Your task to perform on an android device: Search for the best coffee tables on Crate & Barrel Image 0: 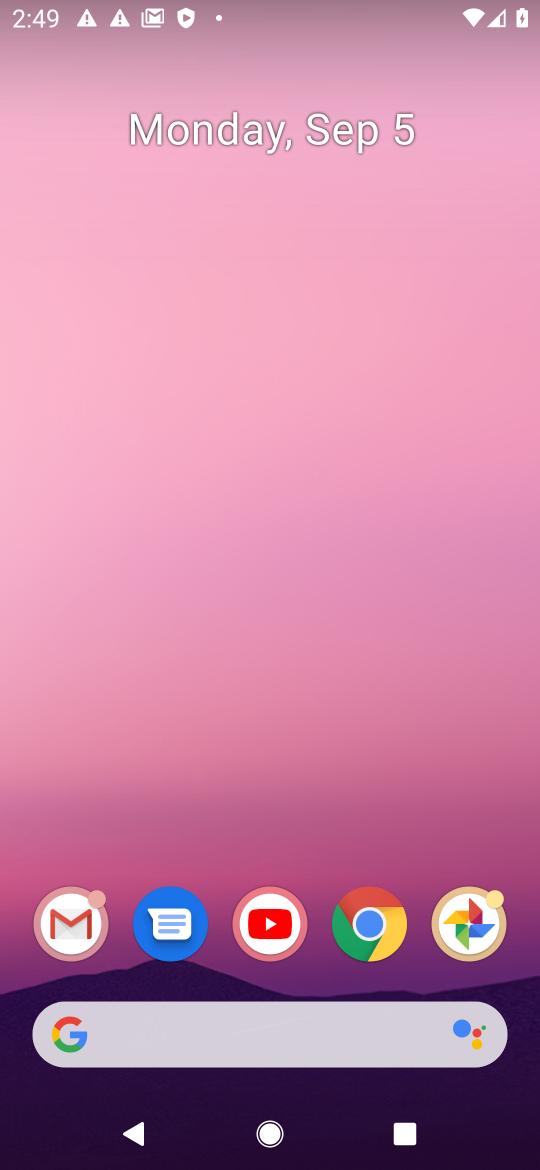
Step 0: drag from (286, 885) to (454, 0)
Your task to perform on an android device: Search for the best coffee tables on Crate & Barrel Image 1: 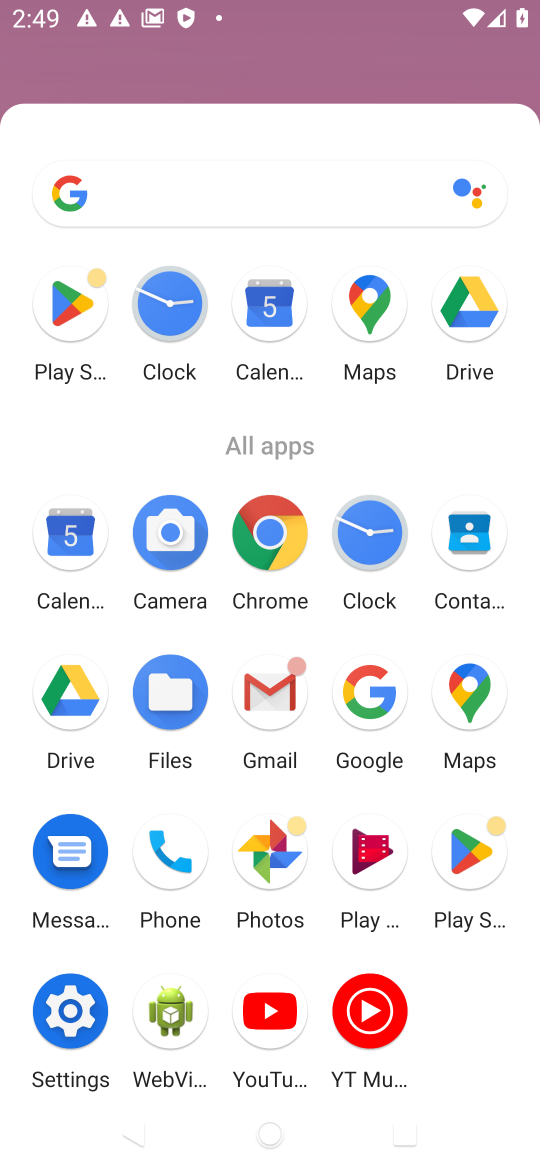
Step 1: click (286, 498)
Your task to perform on an android device: Search for the best coffee tables on Crate & Barrel Image 2: 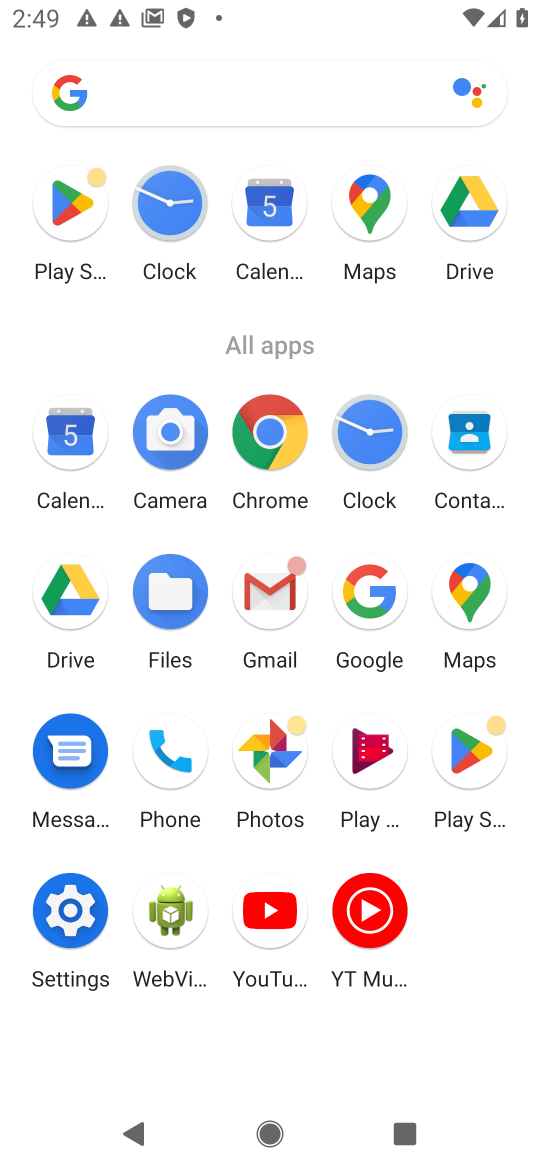
Step 2: click (272, 463)
Your task to perform on an android device: Search for the best coffee tables on Crate & Barrel Image 3: 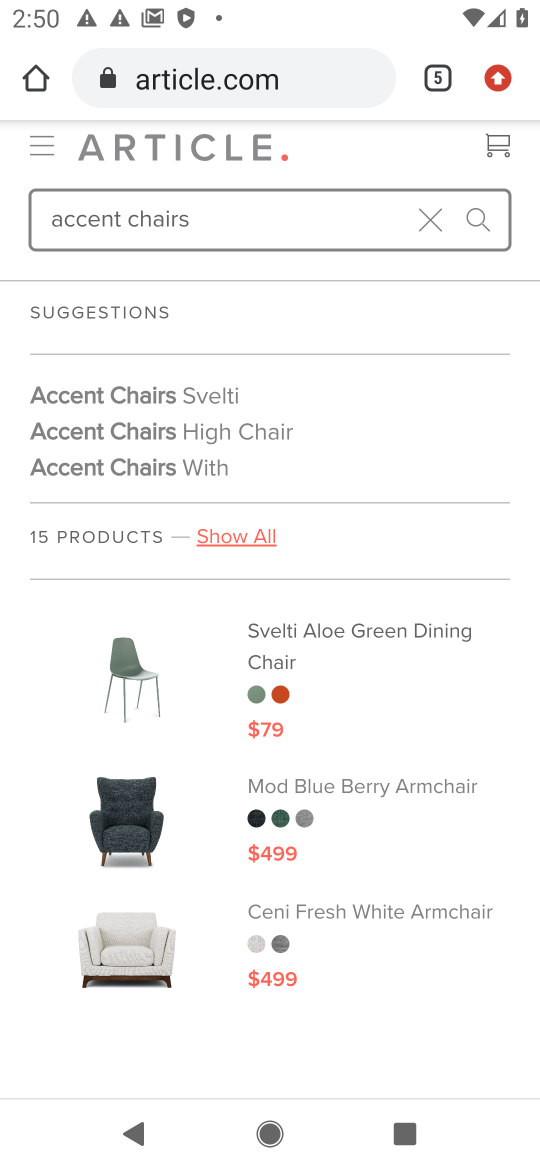
Step 3: click (435, 85)
Your task to perform on an android device: Search for the best coffee tables on Crate & Barrel Image 4: 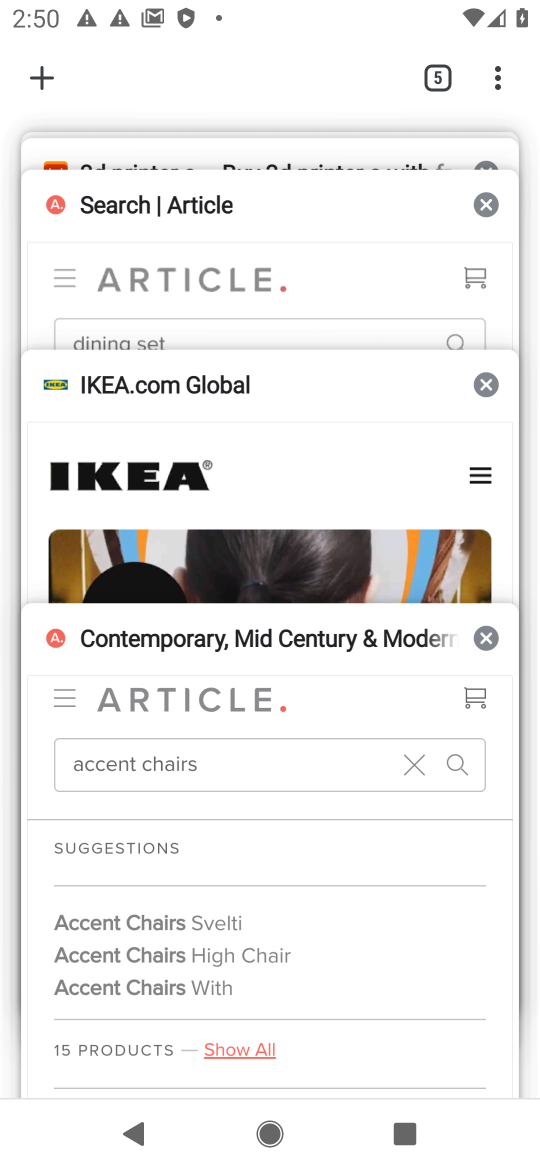
Step 4: click (38, 72)
Your task to perform on an android device: Search for the best coffee tables on Crate & Barrel Image 5: 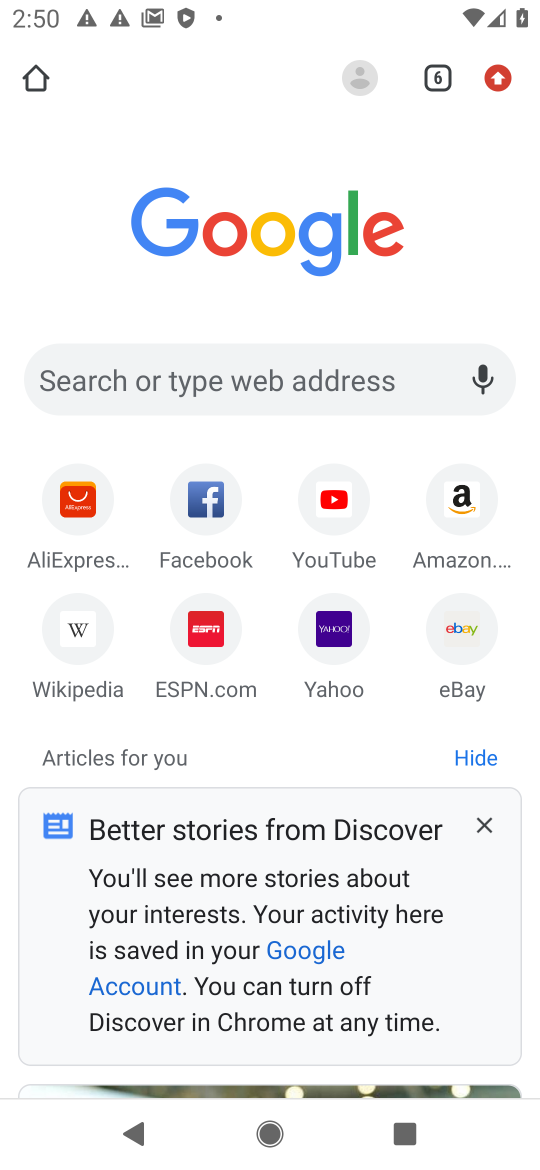
Step 5: click (263, 367)
Your task to perform on an android device: Search for the best coffee tables on Crate & Barrel Image 6: 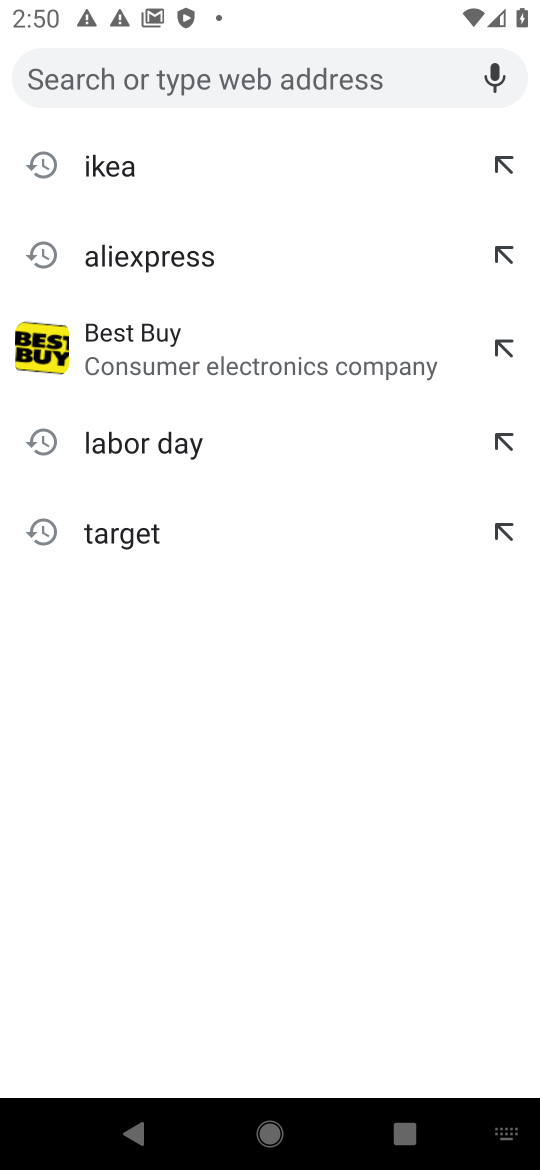
Step 6: type "Crate & Barrel"
Your task to perform on an android device: Search for the best coffee tables on Crate & Barrel Image 7: 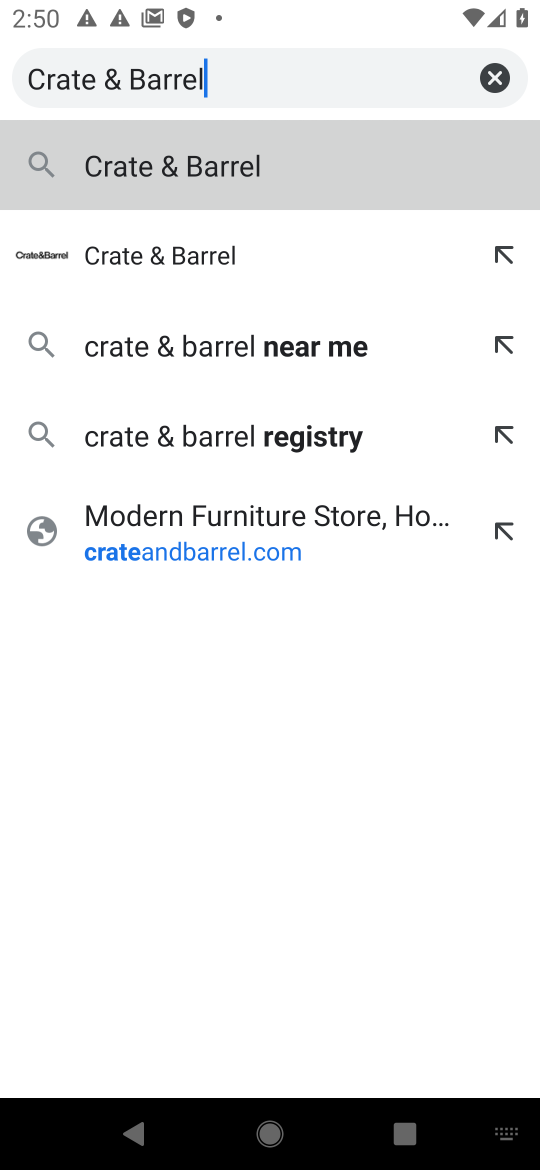
Step 7: click (138, 144)
Your task to perform on an android device: Search for the best coffee tables on Crate & Barrel Image 8: 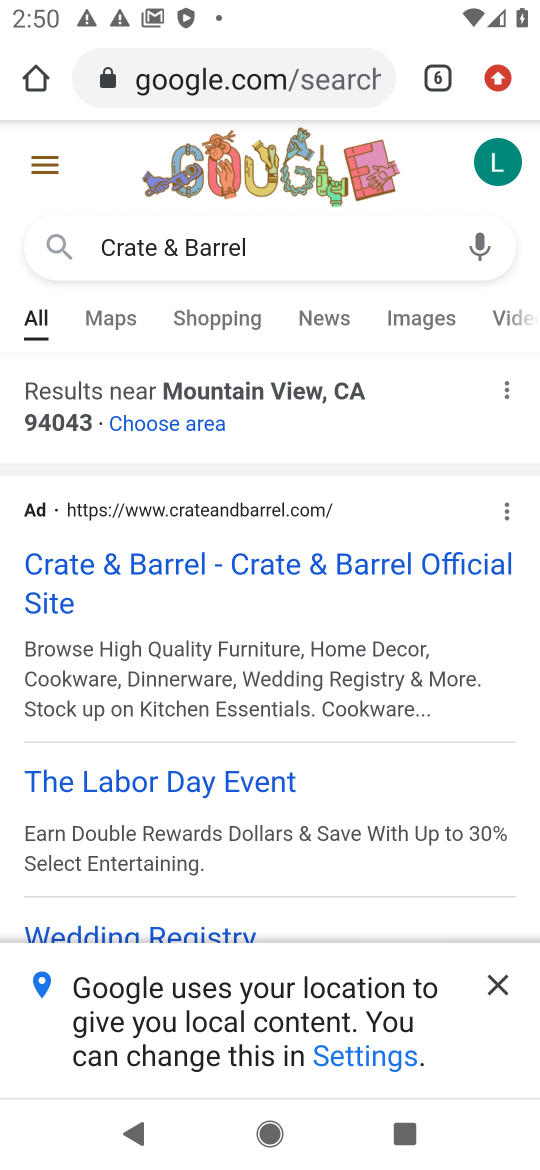
Step 8: click (248, 563)
Your task to perform on an android device: Search for the best coffee tables on Crate & Barrel Image 9: 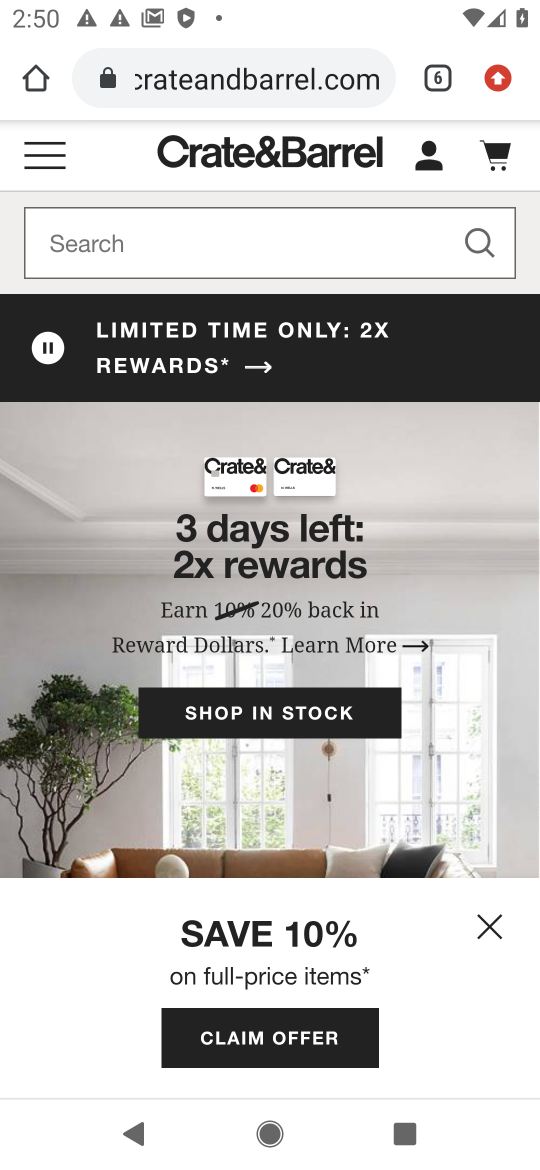
Step 9: click (144, 246)
Your task to perform on an android device: Search for the best coffee tables on Crate & Barrel Image 10: 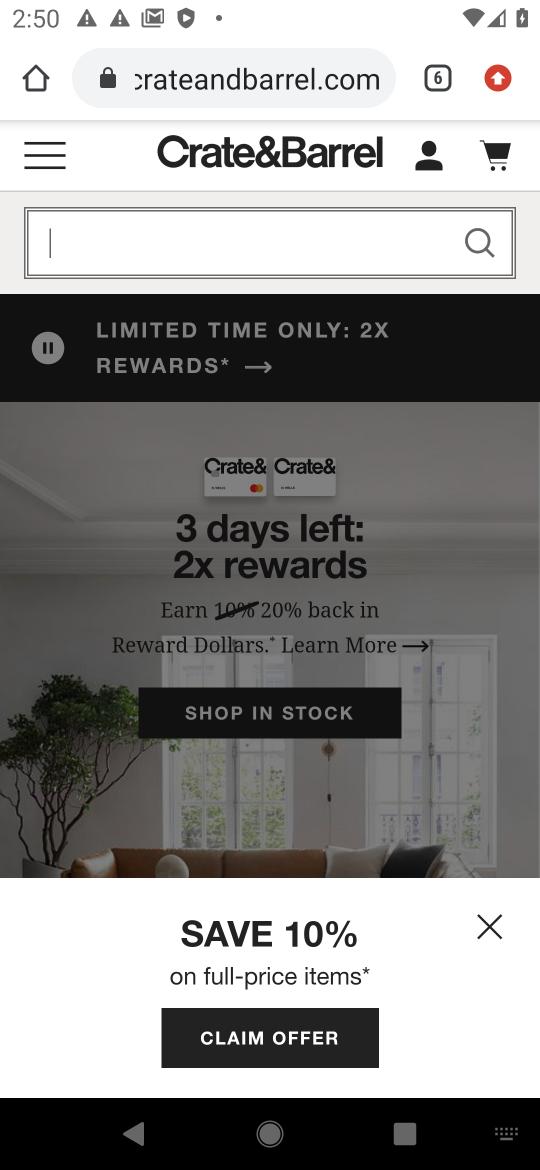
Step 10: type "the best coffee tables"
Your task to perform on an android device: Search for the best coffee tables on Crate & Barrel Image 11: 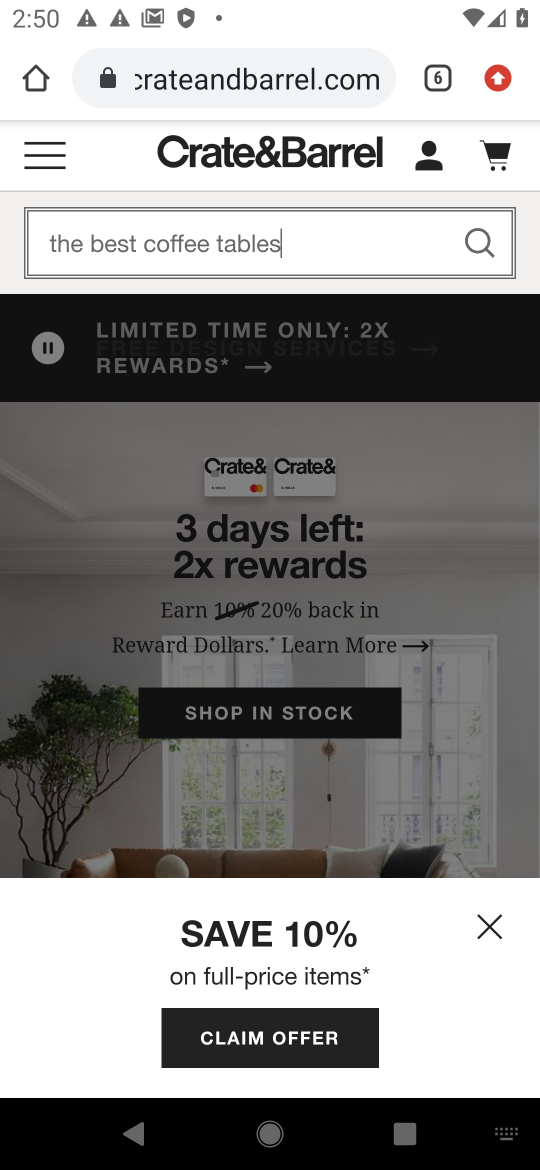
Step 11: type ""
Your task to perform on an android device: Search for the best coffee tables on Crate & Barrel Image 12: 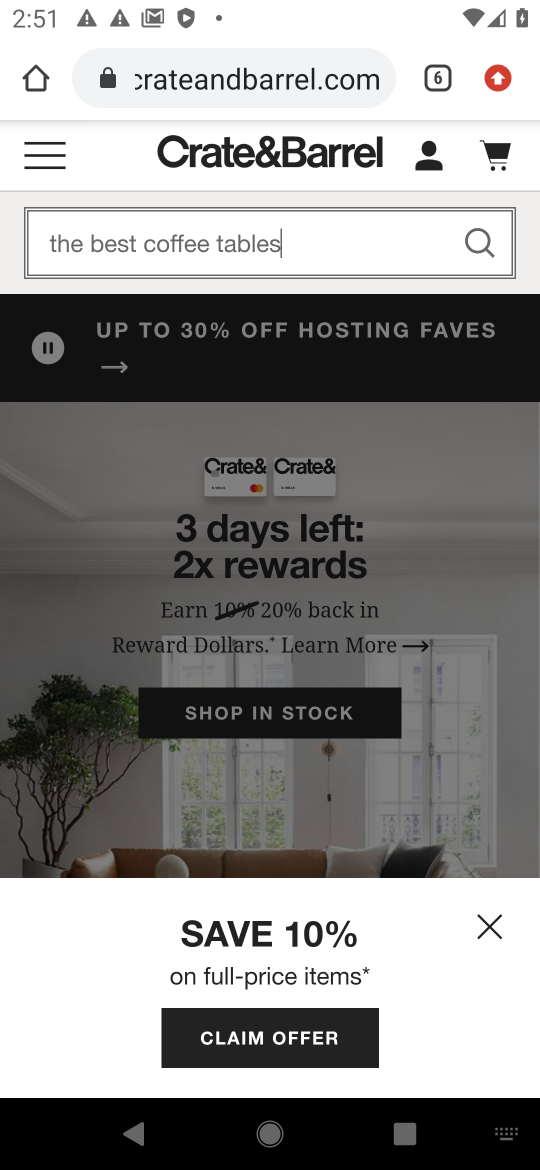
Step 12: click (465, 245)
Your task to perform on an android device: Search for the best coffee tables on Crate & Barrel Image 13: 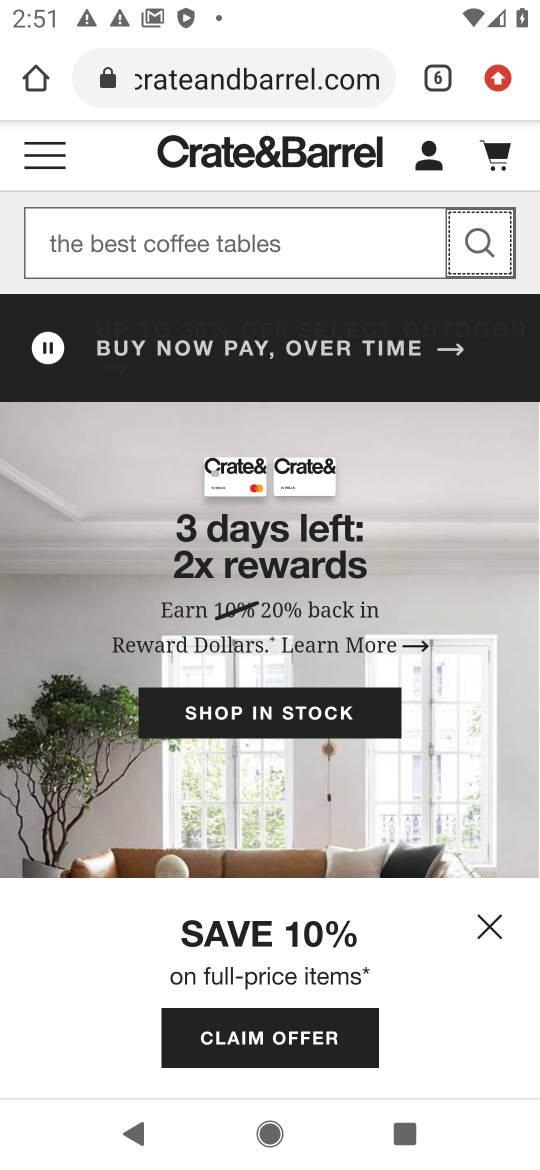
Step 13: click (481, 928)
Your task to perform on an android device: Search for the best coffee tables on Crate & Barrel Image 14: 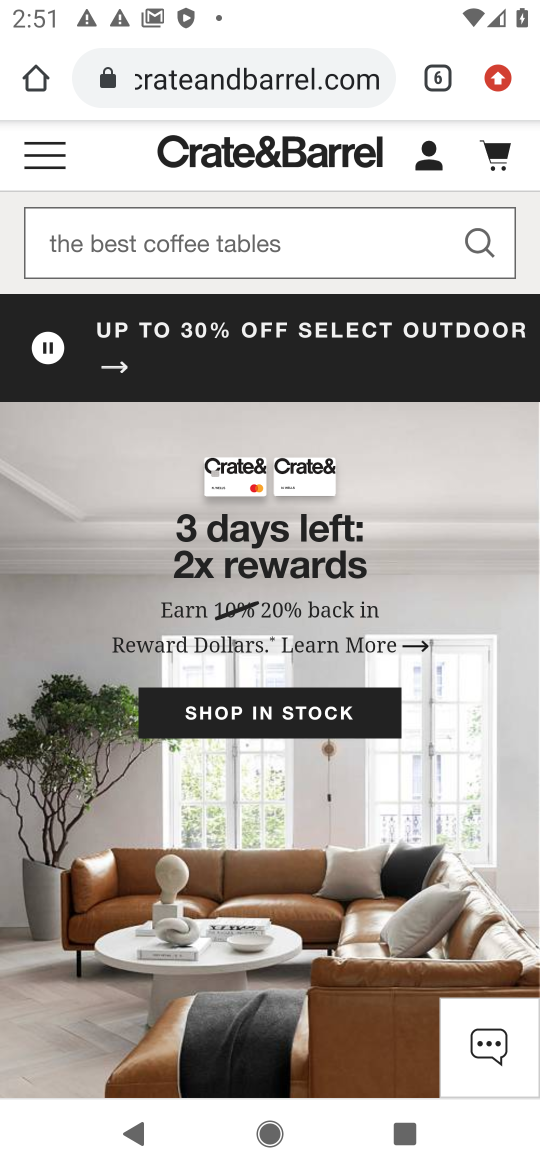
Step 14: click (479, 248)
Your task to perform on an android device: Search for the best coffee tables on Crate & Barrel Image 15: 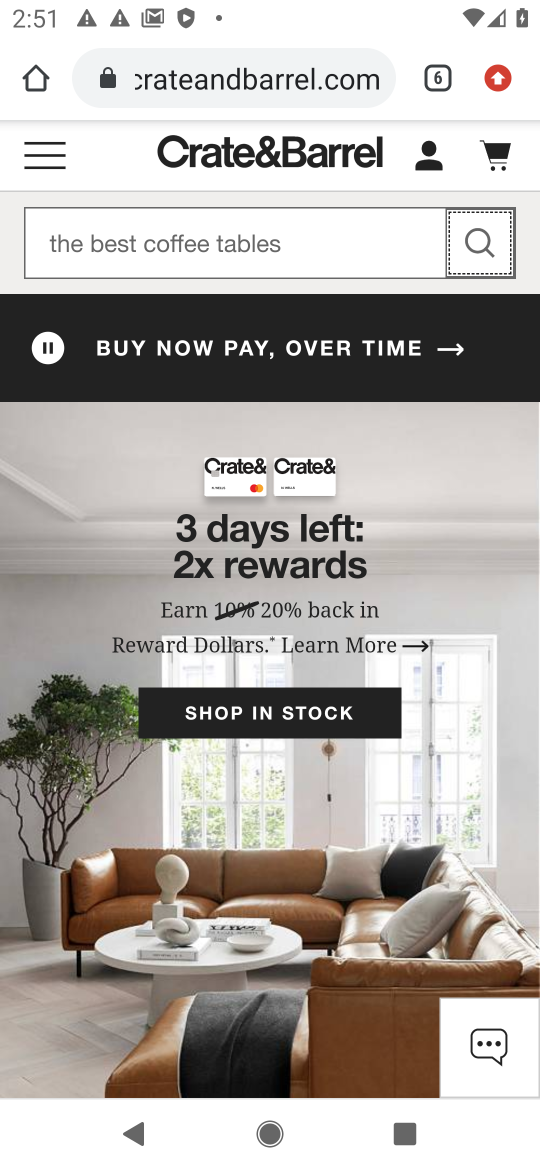
Step 15: click (481, 241)
Your task to perform on an android device: Search for the best coffee tables on Crate & Barrel Image 16: 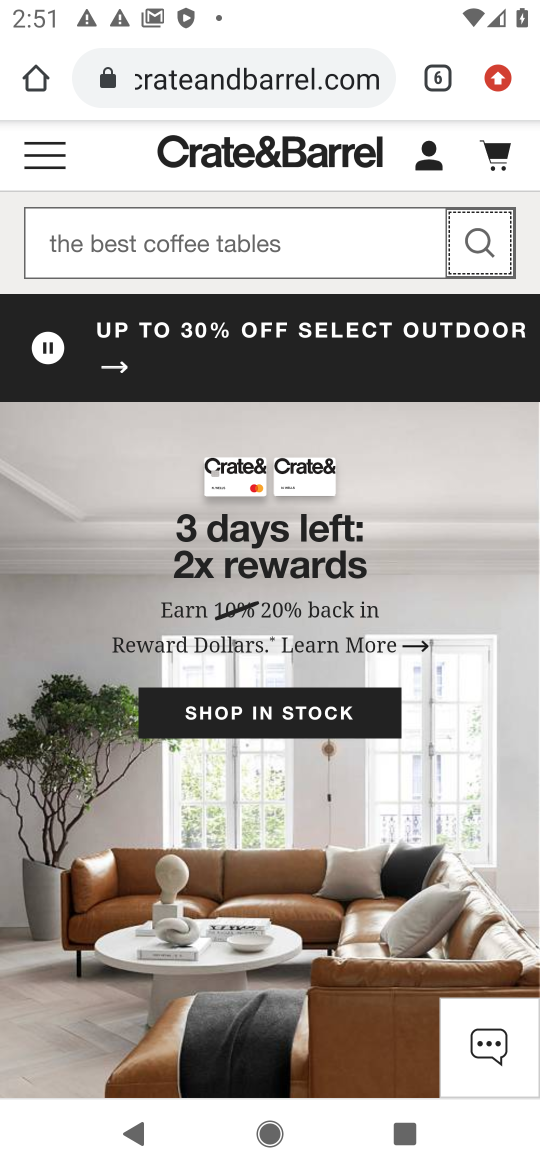
Step 16: task complete